Your task to perform on an android device: turn off priority inbox in the gmail app Image 0: 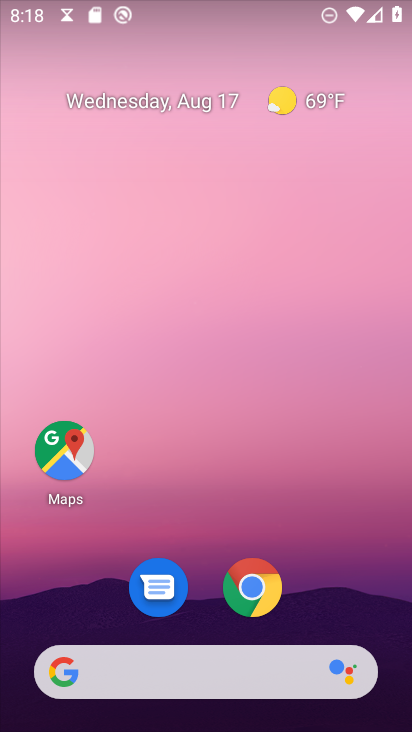
Step 0: drag from (18, 706) to (149, 297)
Your task to perform on an android device: turn off priority inbox in the gmail app Image 1: 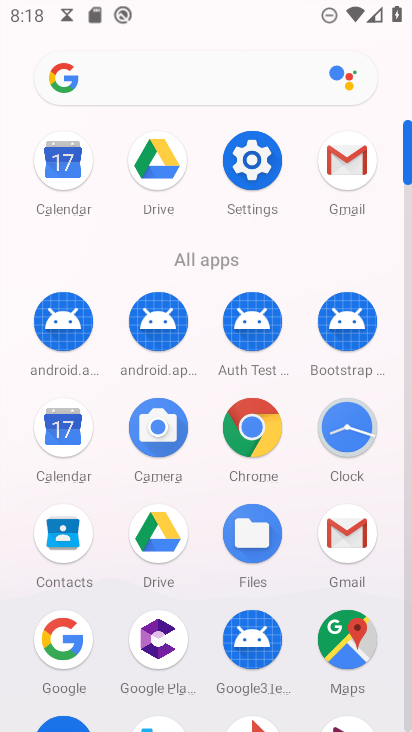
Step 1: click (343, 534)
Your task to perform on an android device: turn off priority inbox in the gmail app Image 2: 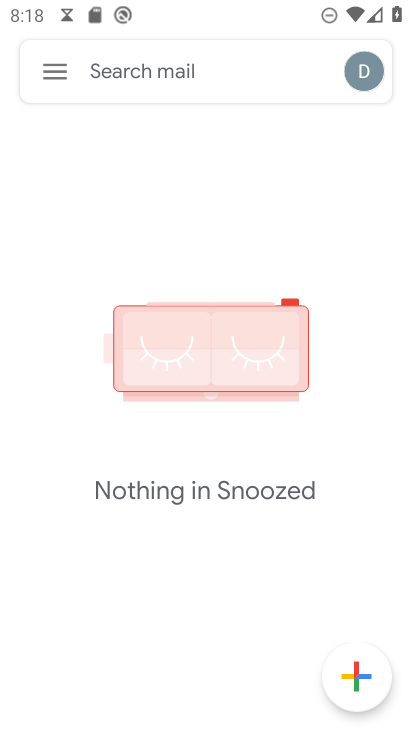
Step 2: click (39, 74)
Your task to perform on an android device: turn off priority inbox in the gmail app Image 3: 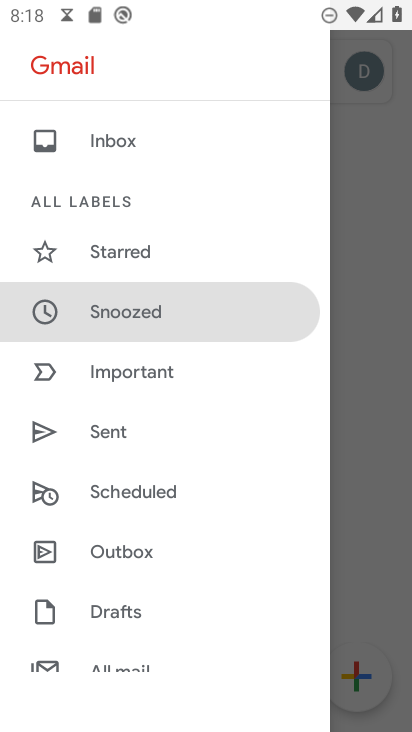
Step 3: drag from (276, 615) to (214, 332)
Your task to perform on an android device: turn off priority inbox in the gmail app Image 4: 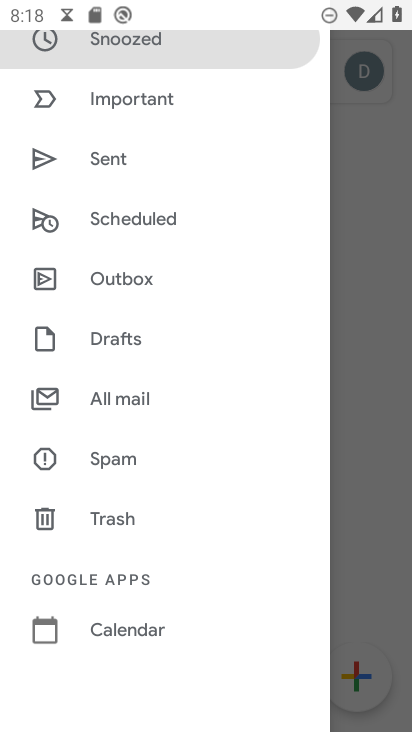
Step 4: drag from (245, 554) to (261, 390)
Your task to perform on an android device: turn off priority inbox in the gmail app Image 5: 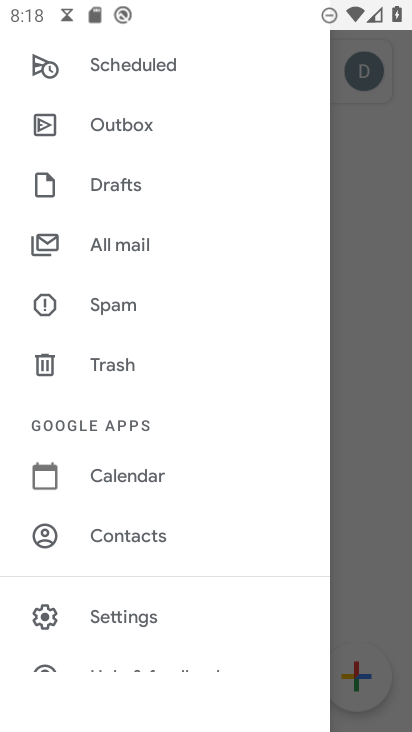
Step 5: click (96, 612)
Your task to perform on an android device: turn off priority inbox in the gmail app Image 6: 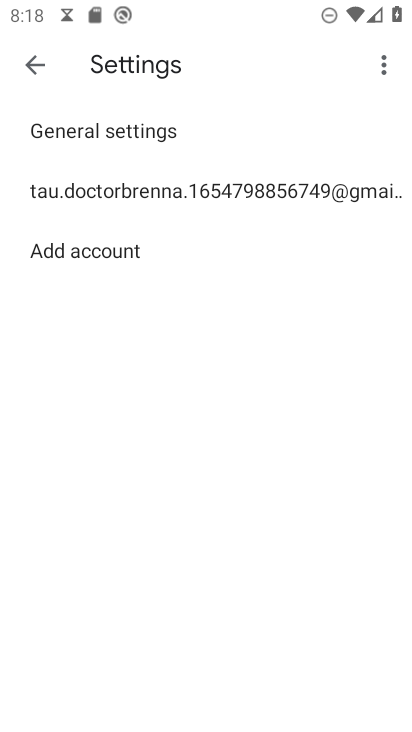
Step 6: click (100, 192)
Your task to perform on an android device: turn off priority inbox in the gmail app Image 7: 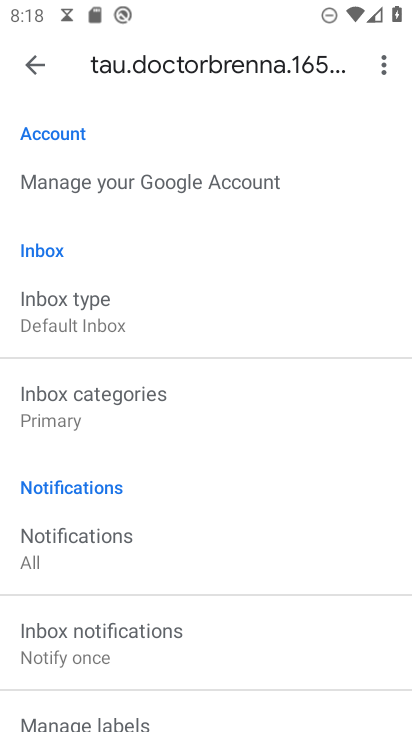
Step 7: click (87, 323)
Your task to perform on an android device: turn off priority inbox in the gmail app Image 8: 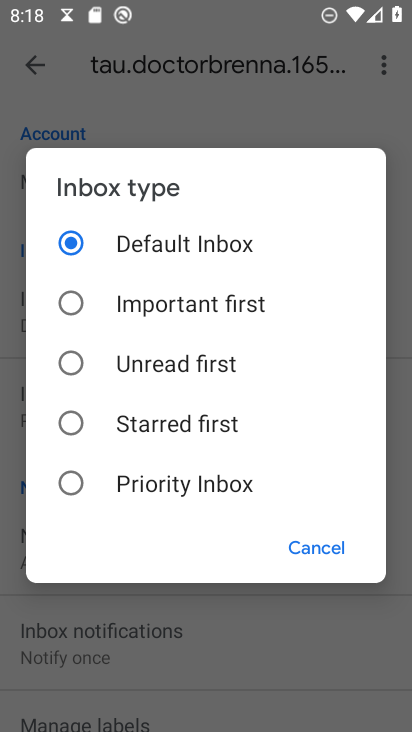
Step 8: click (68, 483)
Your task to perform on an android device: turn off priority inbox in the gmail app Image 9: 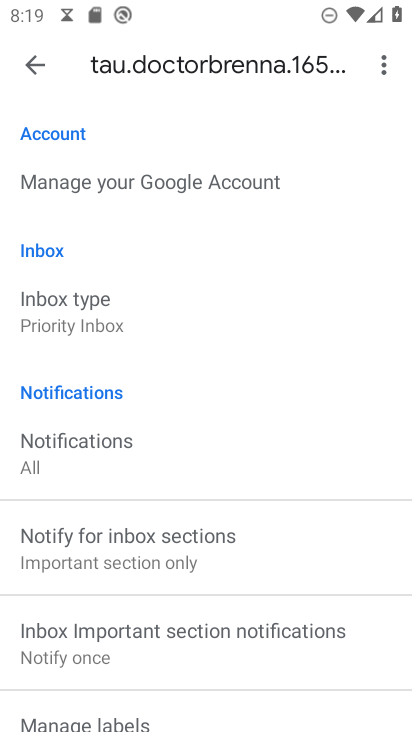
Step 9: task complete